Your task to perform on an android device: check android version Image 0: 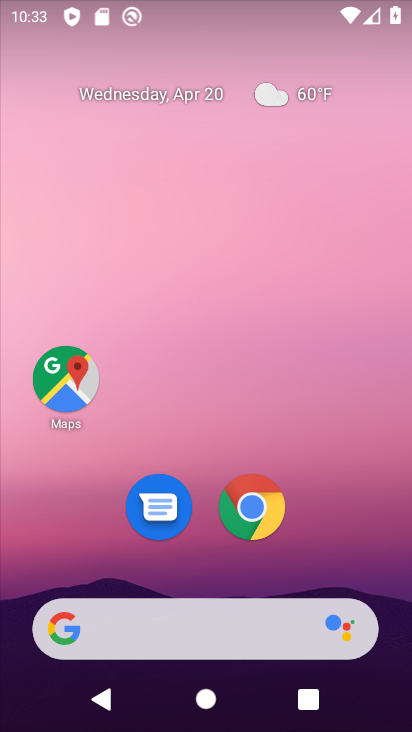
Step 0: click (267, 528)
Your task to perform on an android device: check android version Image 1: 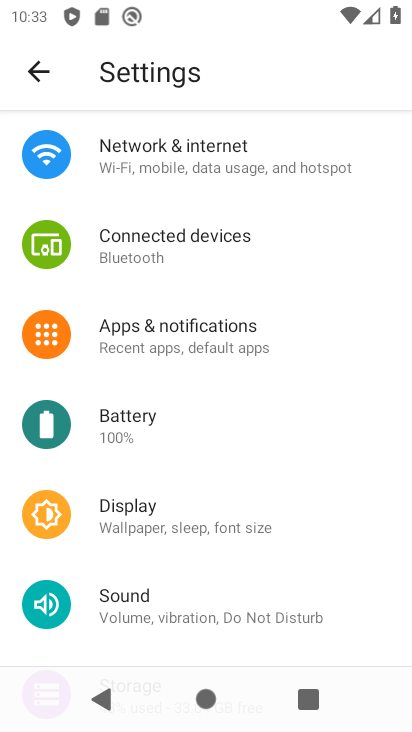
Step 1: press back button
Your task to perform on an android device: check android version Image 2: 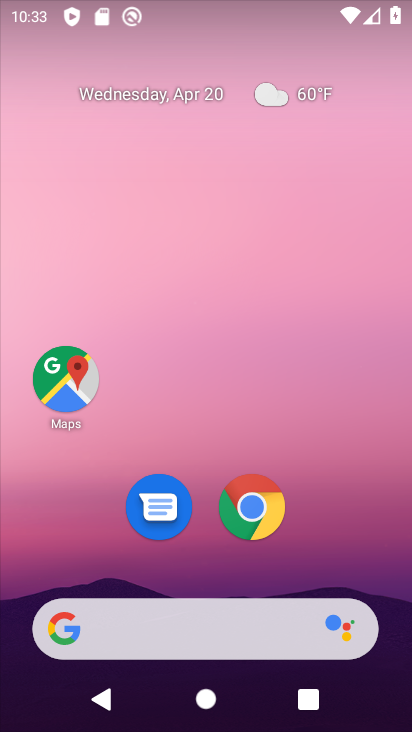
Step 2: drag from (334, 561) to (388, 173)
Your task to perform on an android device: check android version Image 3: 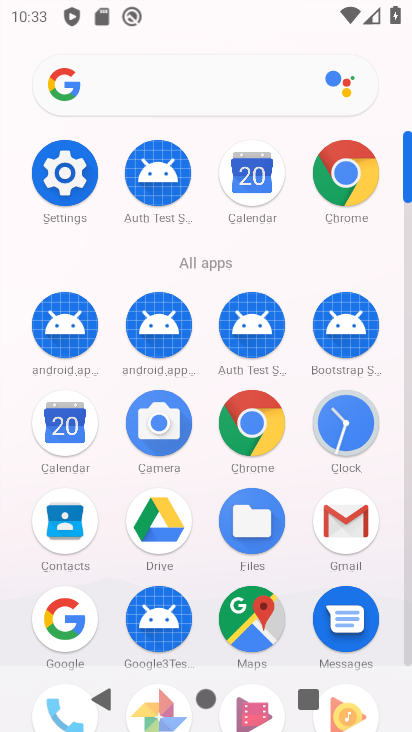
Step 3: click (53, 176)
Your task to perform on an android device: check android version Image 4: 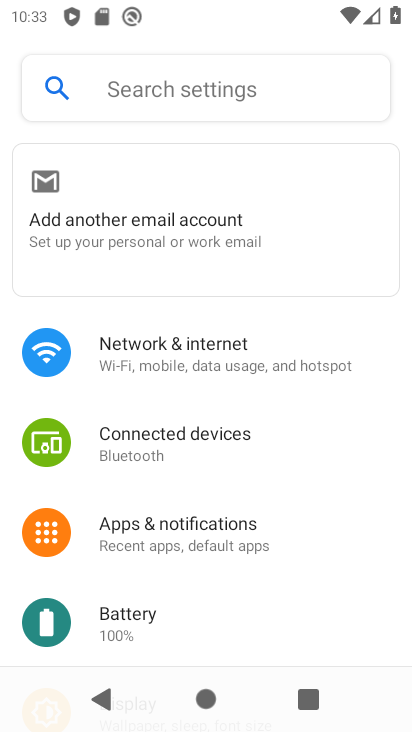
Step 4: drag from (218, 574) to (236, 329)
Your task to perform on an android device: check android version Image 5: 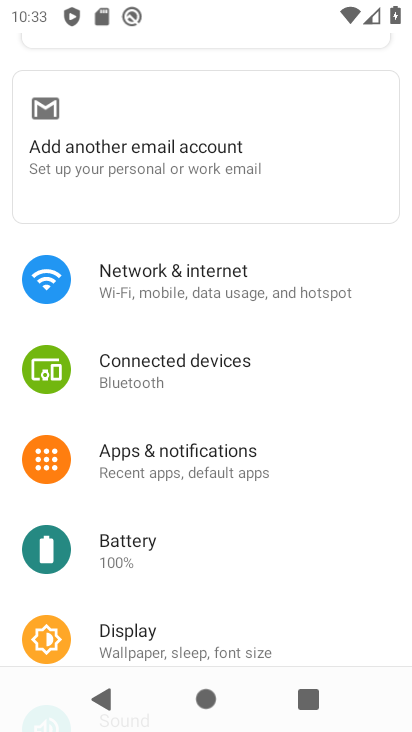
Step 5: drag from (203, 499) to (212, 278)
Your task to perform on an android device: check android version Image 6: 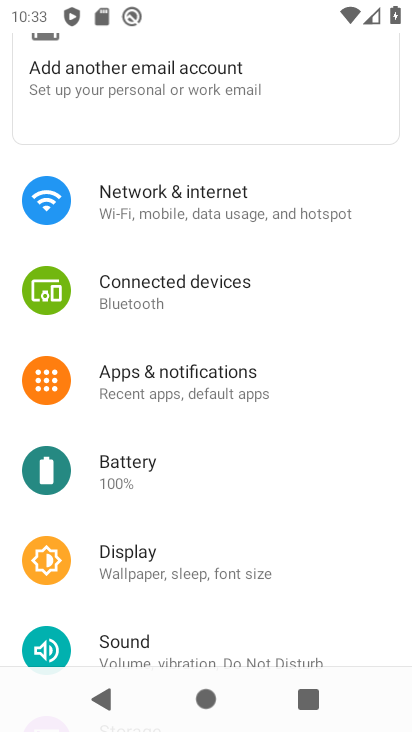
Step 6: drag from (231, 491) to (233, 278)
Your task to perform on an android device: check android version Image 7: 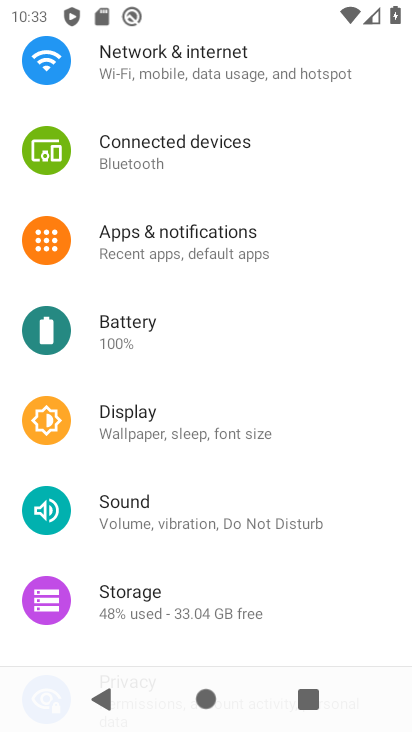
Step 7: drag from (235, 384) to (216, 220)
Your task to perform on an android device: check android version Image 8: 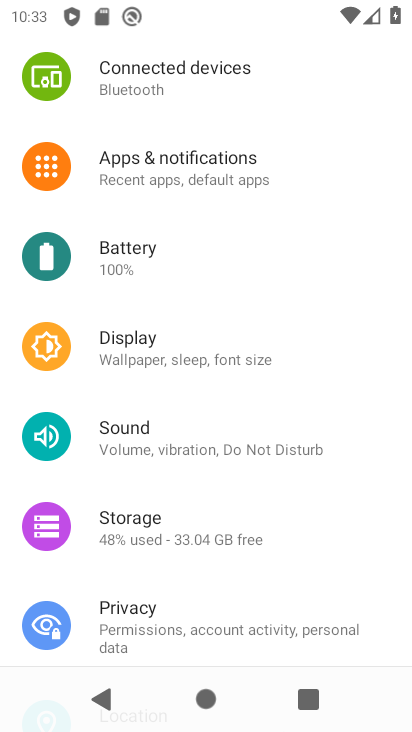
Step 8: drag from (209, 257) to (223, 460)
Your task to perform on an android device: check android version Image 9: 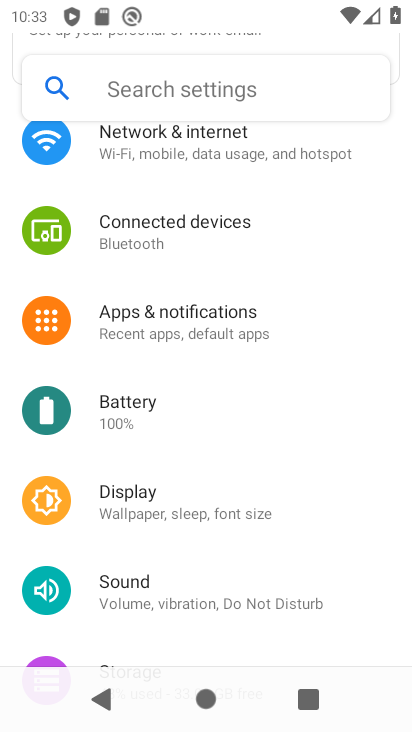
Step 9: drag from (226, 563) to (309, 258)
Your task to perform on an android device: check android version Image 10: 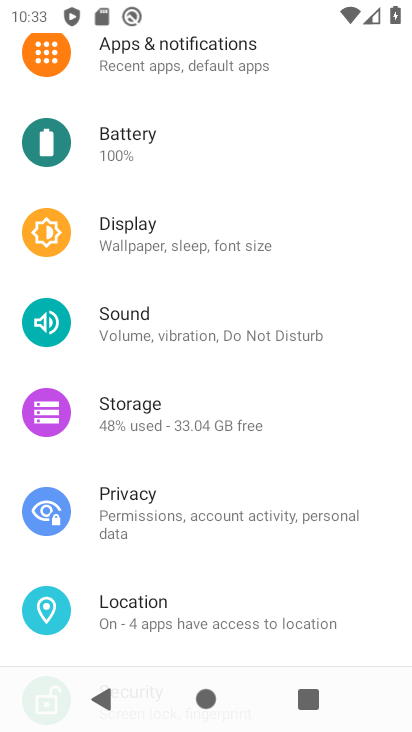
Step 10: drag from (249, 370) to (299, 172)
Your task to perform on an android device: check android version Image 11: 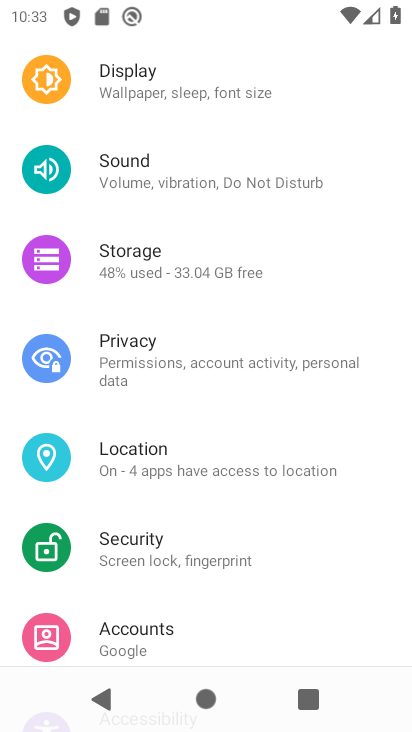
Step 11: drag from (174, 575) to (221, 163)
Your task to perform on an android device: check android version Image 12: 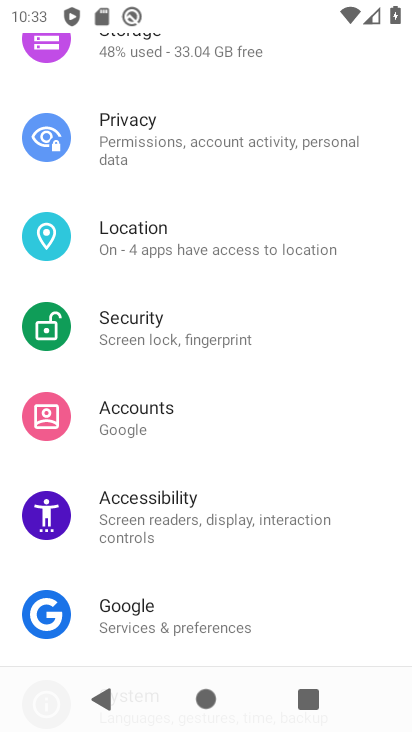
Step 12: drag from (224, 620) to (264, 210)
Your task to perform on an android device: check android version Image 13: 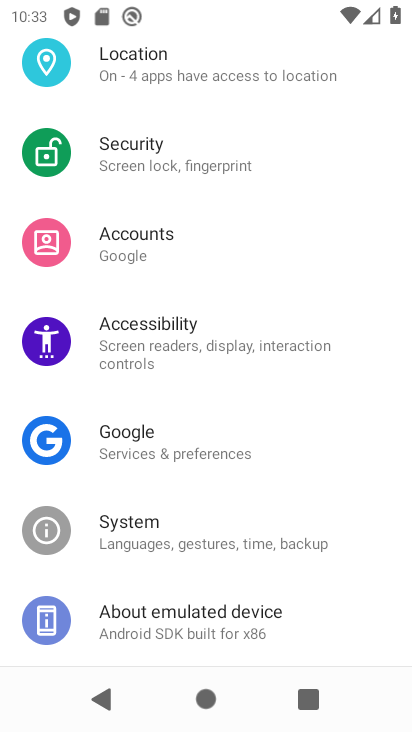
Step 13: click (124, 631)
Your task to perform on an android device: check android version Image 14: 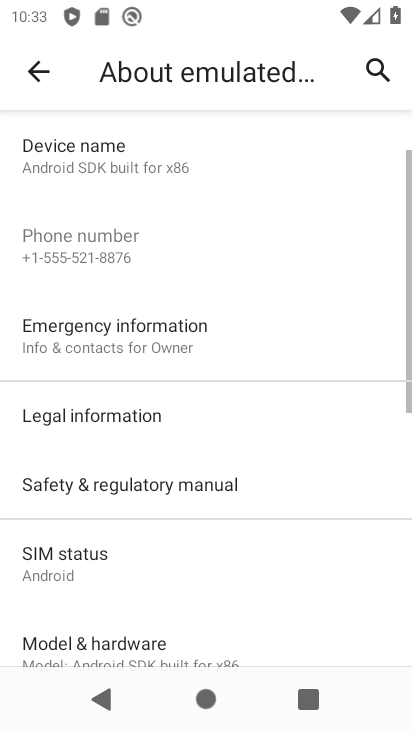
Step 14: drag from (181, 610) to (246, 348)
Your task to perform on an android device: check android version Image 15: 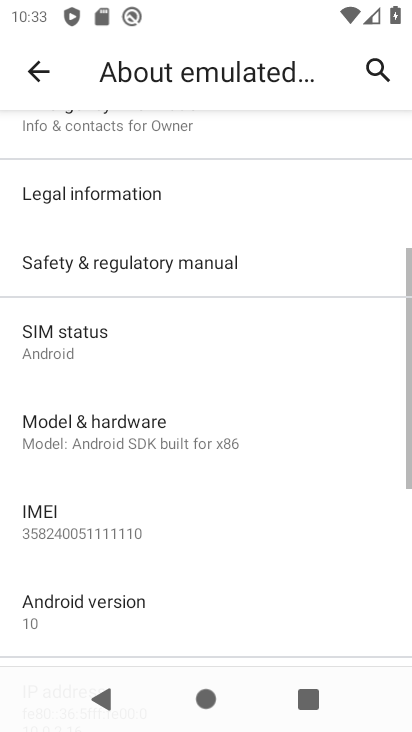
Step 15: click (94, 630)
Your task to perform on an android device: check android version Image 16: 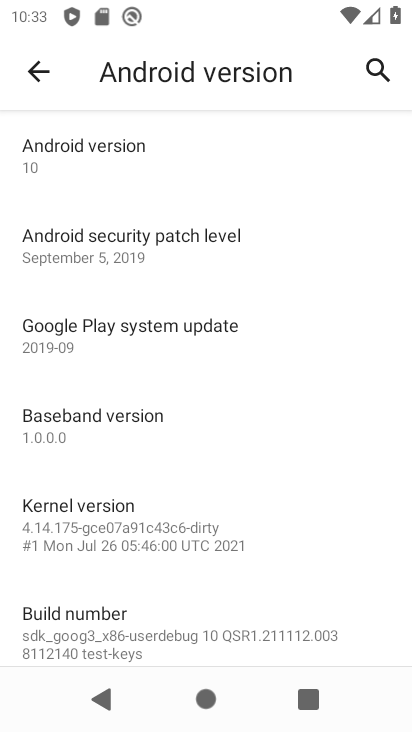
Step 16: task complete